Your task to perform on an android device: clear all cookies in the chrome app Image 0: 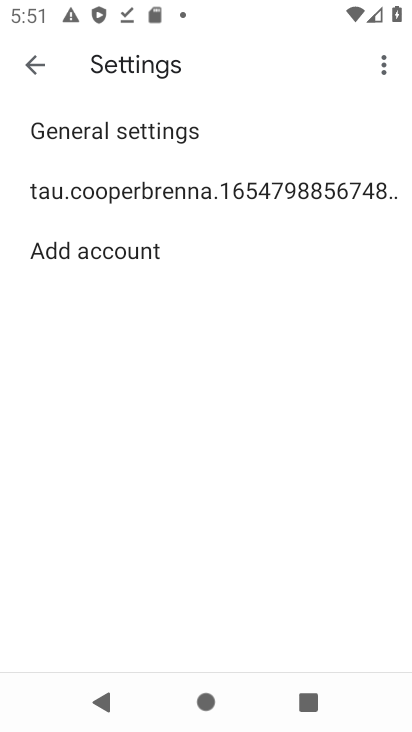
Step 0: drag from (200, 544) to (235, 356)
Your task to perform on an android device: clear all cookies in the chrome app Image 1: 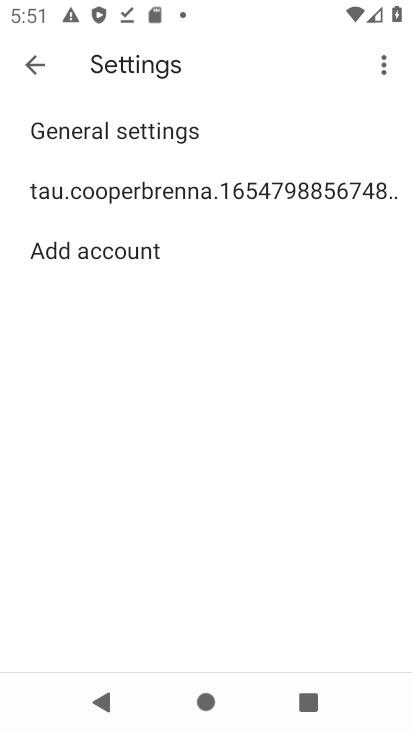
Step 1: press home button
Your task to perform on an android device: clear all cookies in the chrome app Image 2: 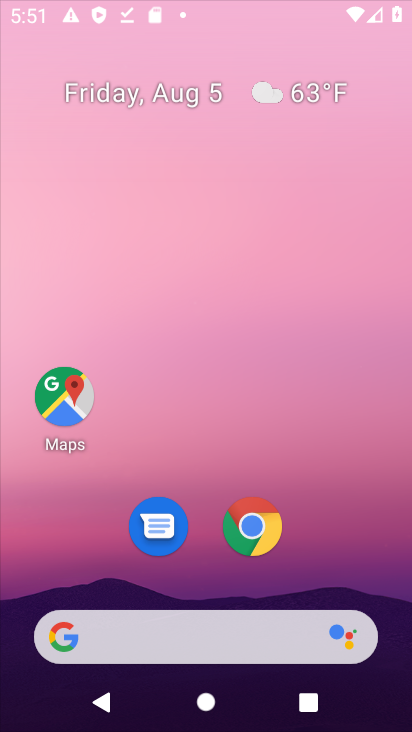
Step 2: drag from (157, 479) to (119, 27)
Your task to perform on an android device: clear all cookies in the chrome app Image 3: 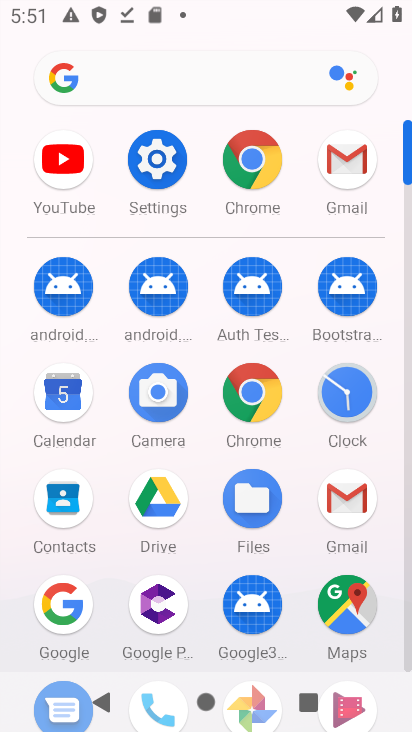
Step 3: click (253, 152)
Your task to perform on an android device: clear all cookies in the chrome app Image 4: 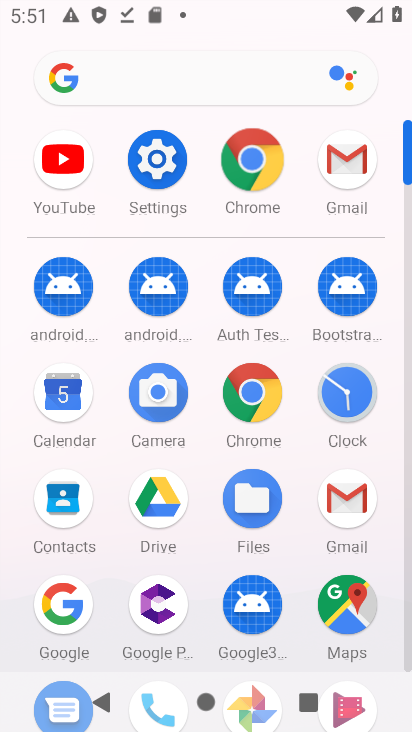
Step 4: click (253, 152)
Your task to perform on an android device: clear all cookies in the chrome app Image 5: 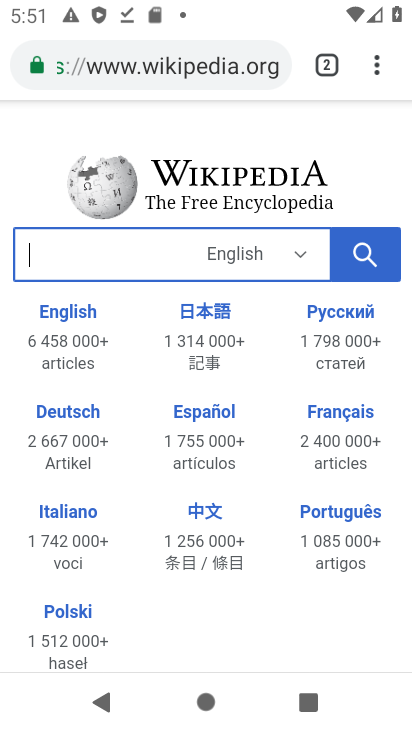
Step 5: drag from (263, 592) to (294, 275)
Your task to perform on an android device: clear all cookies in the chrome app Image 6: 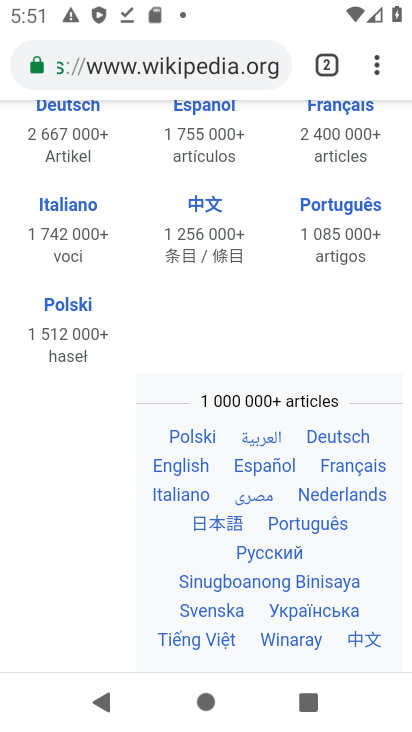
Step 6: drag from (312, 227) to (247, 731)
Your task to perform on an android device: clear all cookies in the chrome app Image 7: 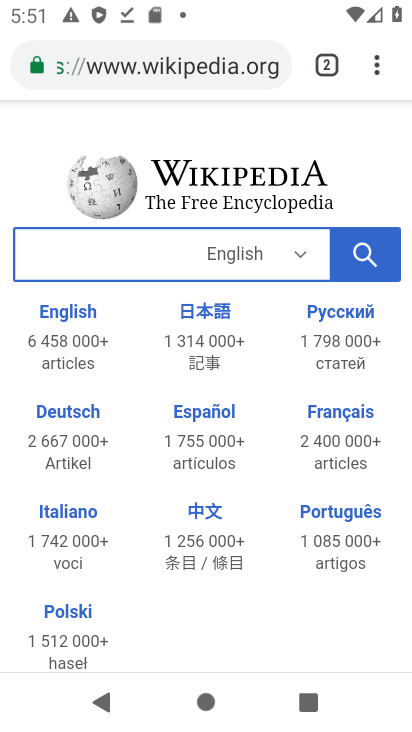
Step 7: drag from (377, 57) to (162, 575)
Your task to perform on an android device: clear all cookies in the chrome app Image 8: 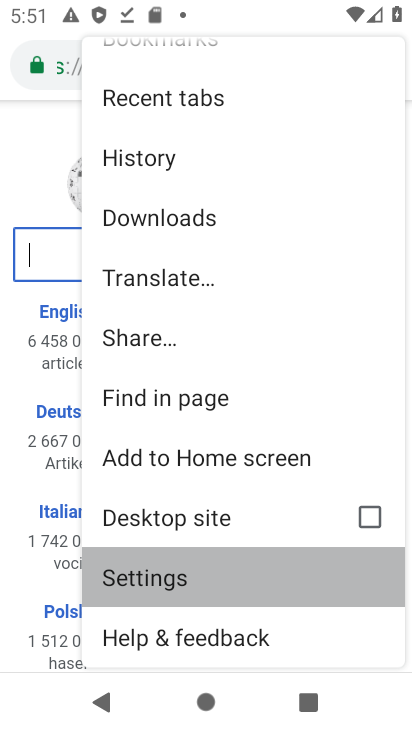
Step 8: click (159, 575)
Your task to perform on an android device: clear all cookies in the chrome app Image 9: 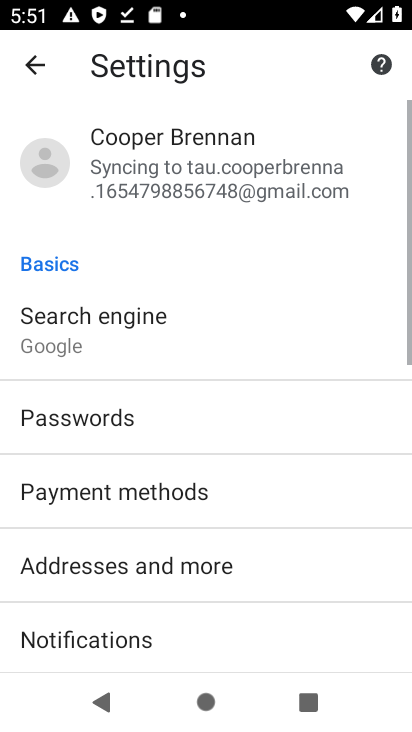
Step 9: drag from (201, 441) to (175, 226)
Your task to perform on an android device: clear all cookies in the chrome app Image 10: 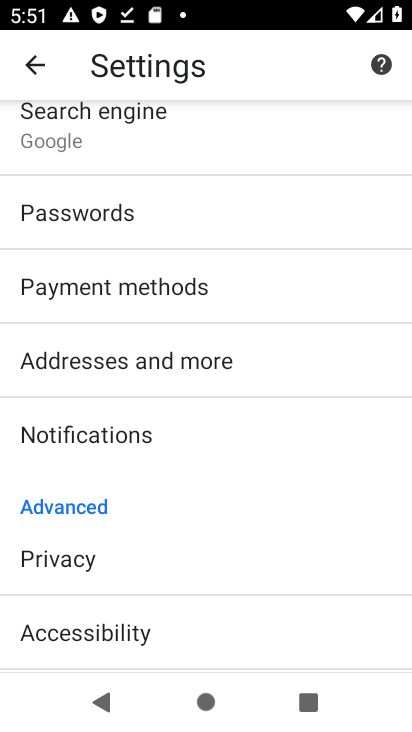
Step 10: drag from (143, 587) to (203, 186)
Your task to perform on an android device: clear all cookies in the chrome app Image 11: 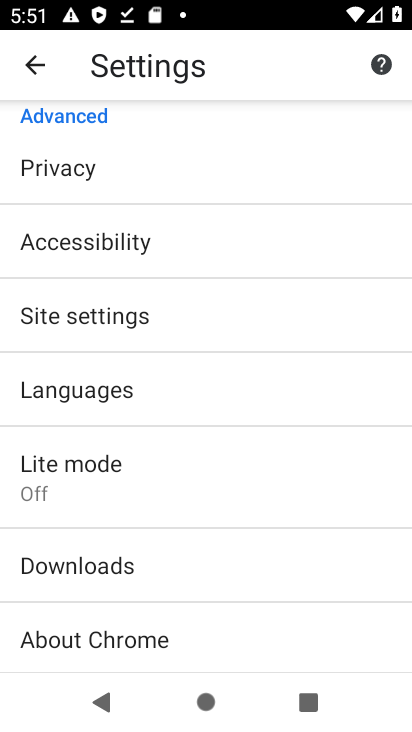
Step 11: click (147, 315)
Your task to perform on an android device: clear all cookies in the chrome app Image 12: 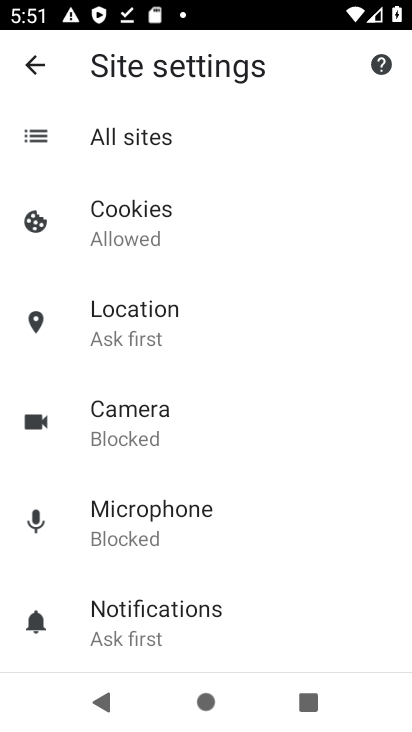
Step 12: click (175, 228)
Your task to perform on an android device: clear all cookies in the chrome app Image 13: 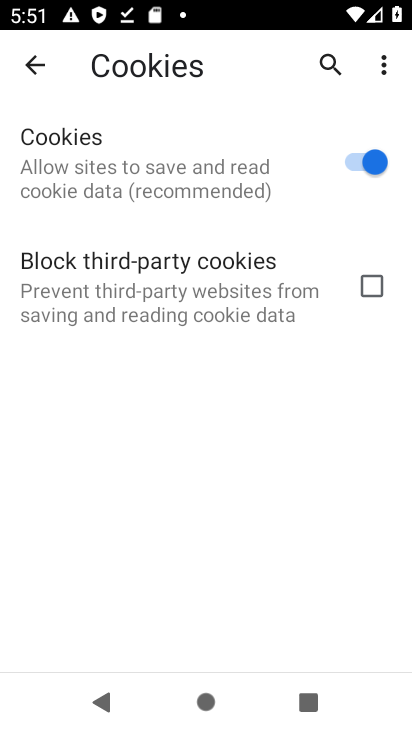
Step 13: click (35, 60)
Your task to perform on an android device: clear all cookies in the chrome app Image 14: 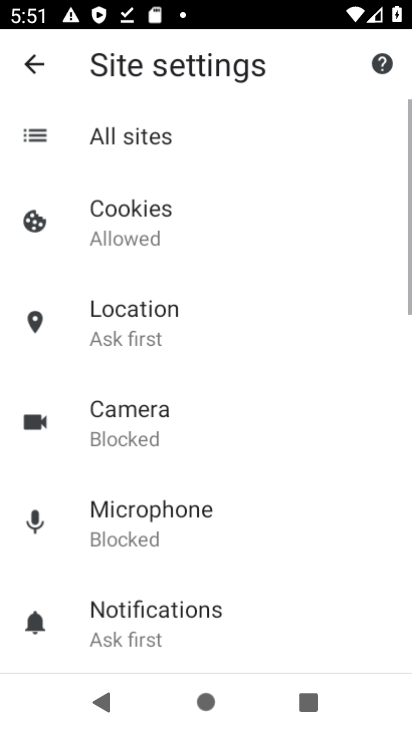
Step 14: click (35, 60)
Your task to perform on an android device: clear all cookies in the chrome app Image 15: 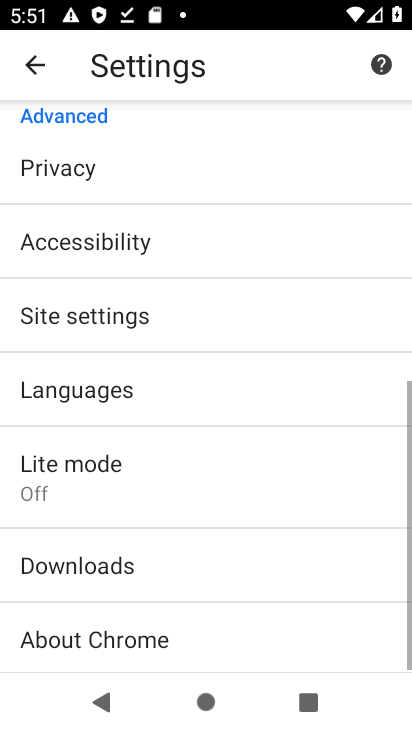
Step 15: click (36, 60)
Your task to perform on an android device: clear all cookies in the chrome app Image 16: 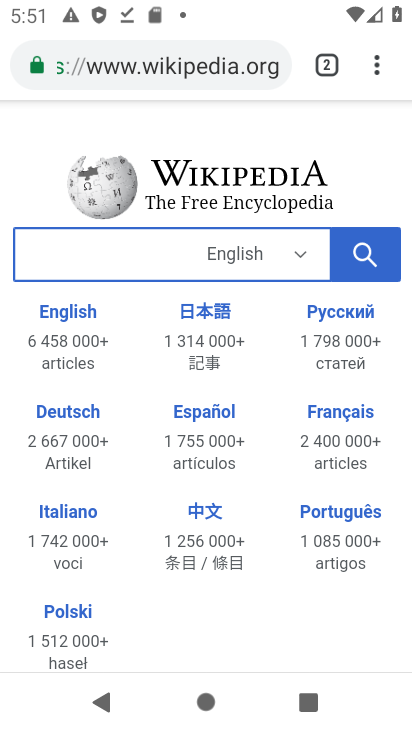
Step 16: drag from (362, 70) to (172, 361)
Your task to perform on an android device: clear all cookies in the chrome app Image 17: 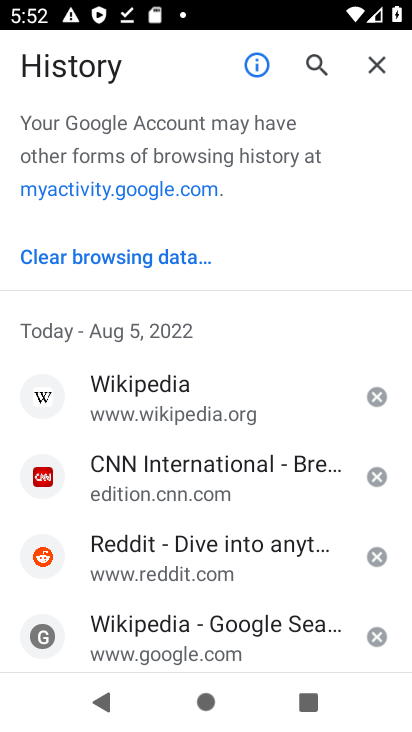
Step 17: click (94, 248)
Your task to perform on an android device: clear all cookies in the chrome app Image 18: 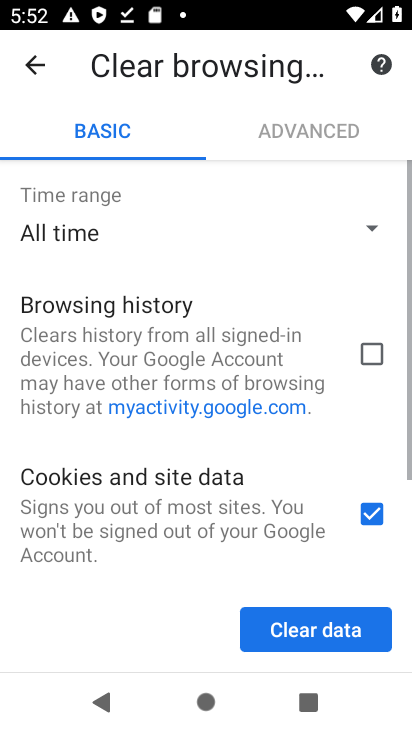
Step 18: click (261, 628)
Your task to perform on an android device: clear all cookies in the chrome app Image 19: 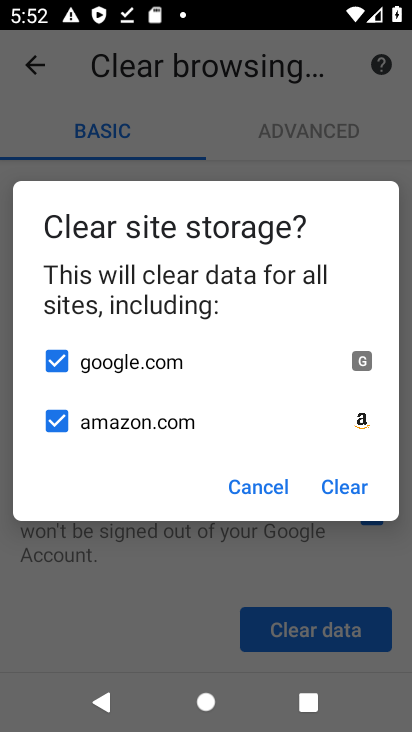
Step 19: click (329, 474)
Your task to perform on an android device: clear all cookies in the chrome app Image 20: 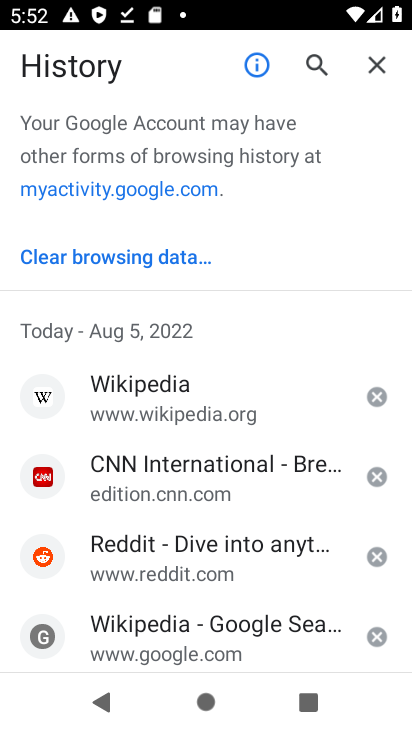
Step 20: task complete